Your task to perform on an android device: uninstall "Facebook Lite" Image 0: 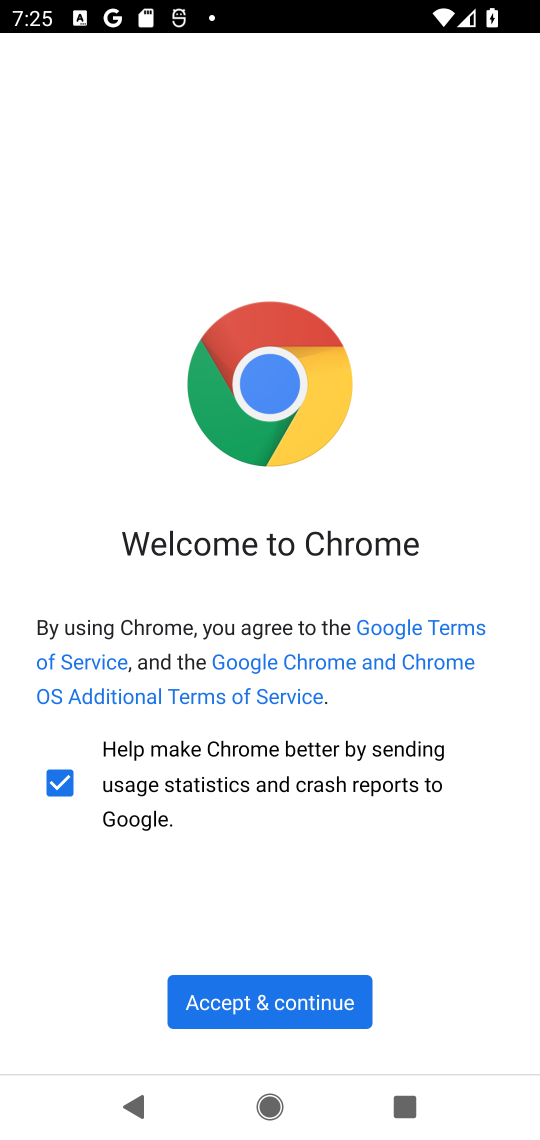
Step 0: press home button
Your task to perform on an android device: uninstall "Facebook Lite" Image 1: 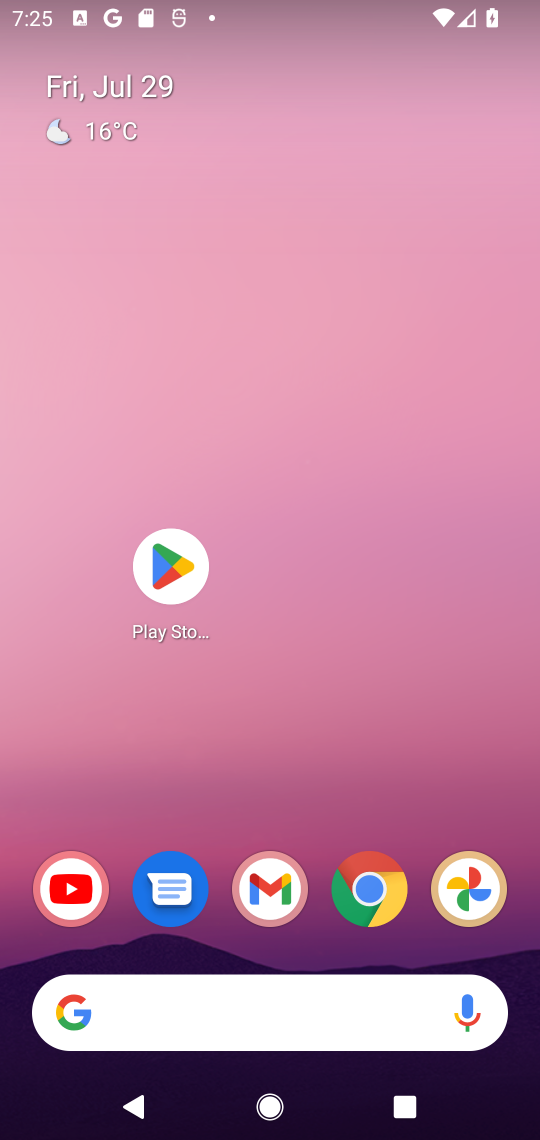
Step 1: click (172, 567)
Your task to perform on an android device: uninstall "Facebook Lite" Image 2: 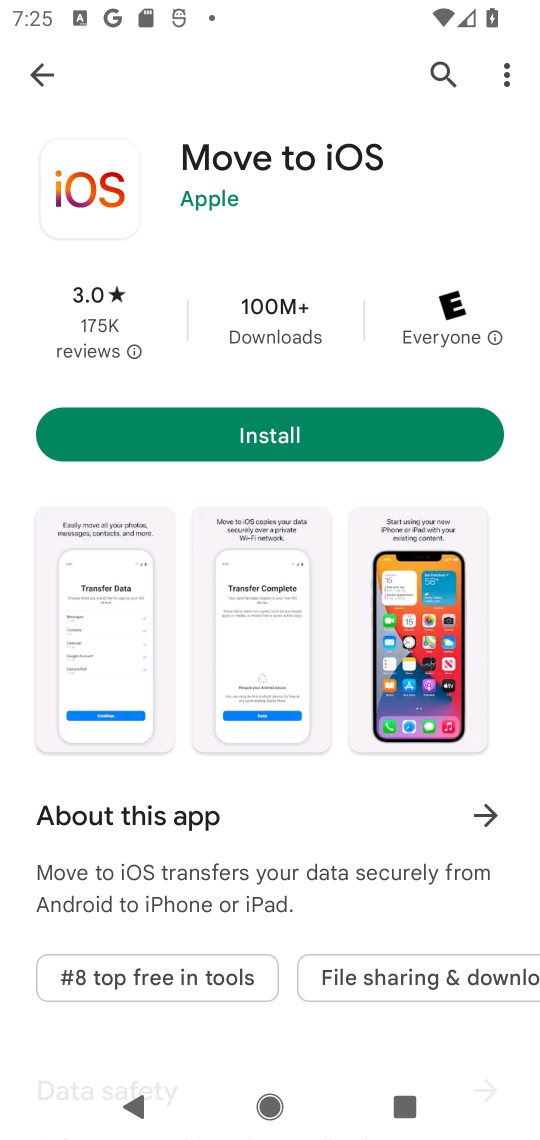
Step 2: click (438, 68)
Your task to perform on an android device: uninstall "Facebook Lite" Image 3: 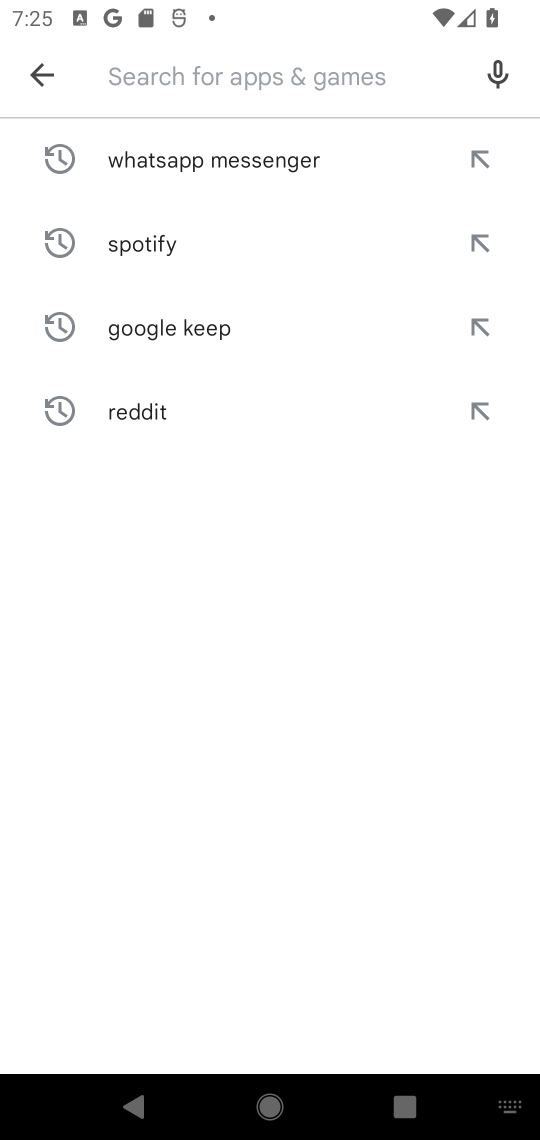
Step 3: type "Facebook Lite"
Your task to perform on an android device: uninstall "Facebook Lite" Image 4: 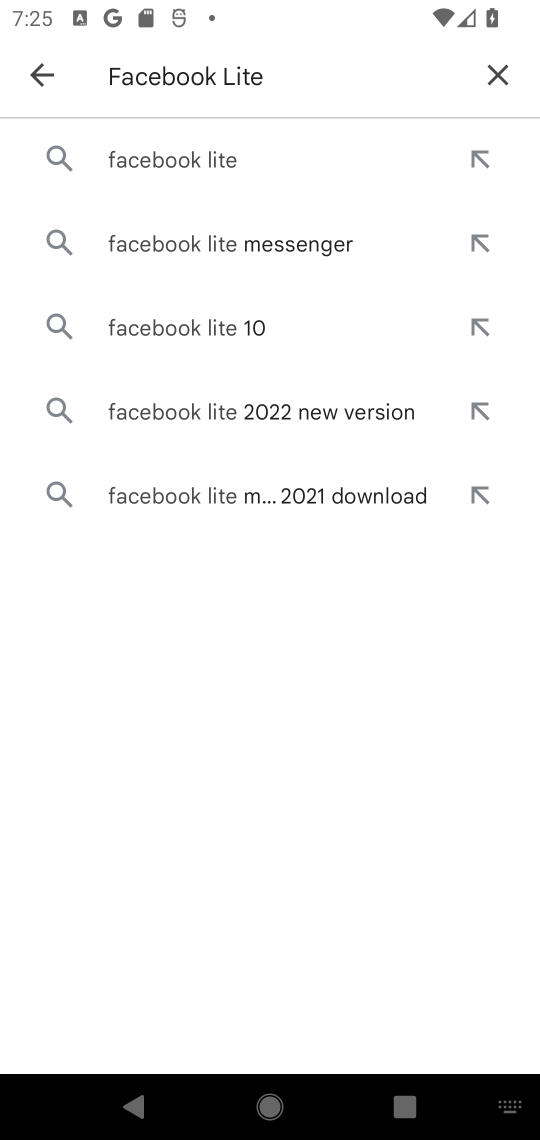
Step 4: click (182, 166)
Your task to perform on an android device: uninstall "Facebook Lite" Image 5: 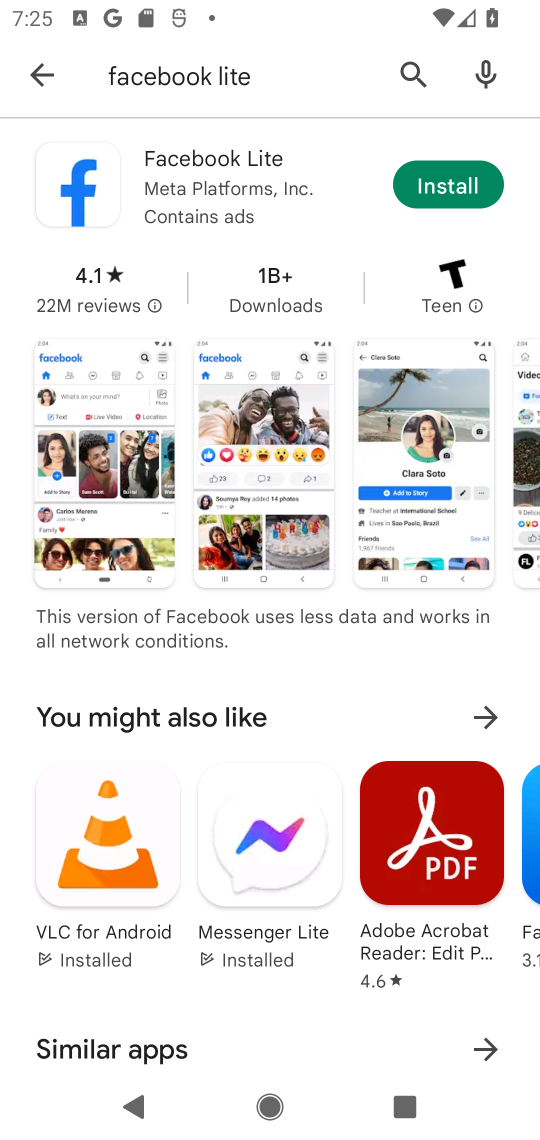
Step 5: task complete